Your task to perform on an android device: visit the assistant section in the google photos Image 0: 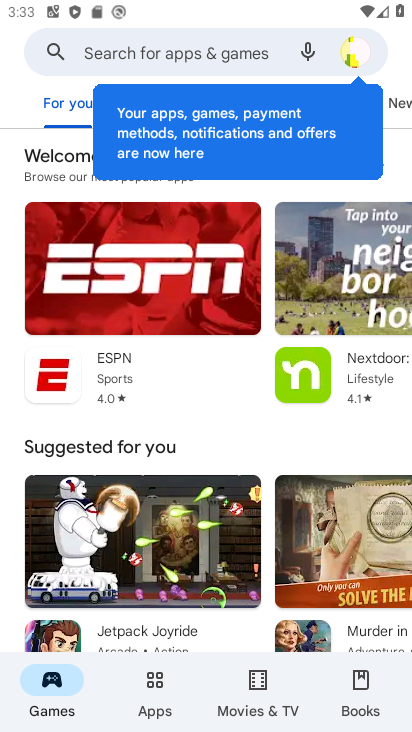
Step 0: press home button
Your task to perform on an android device: visit the assistant section in the google photos Image 1: 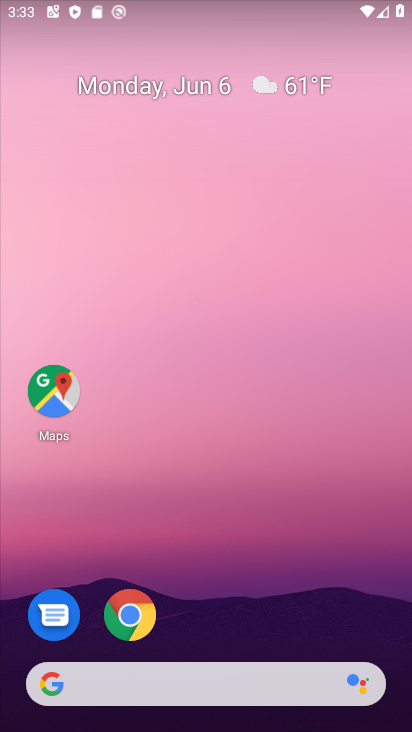
Step 1: drag from (338, 627) to (282, 0)
Your task to perform on an android device: visit the assistant section in the google photos Image 2: 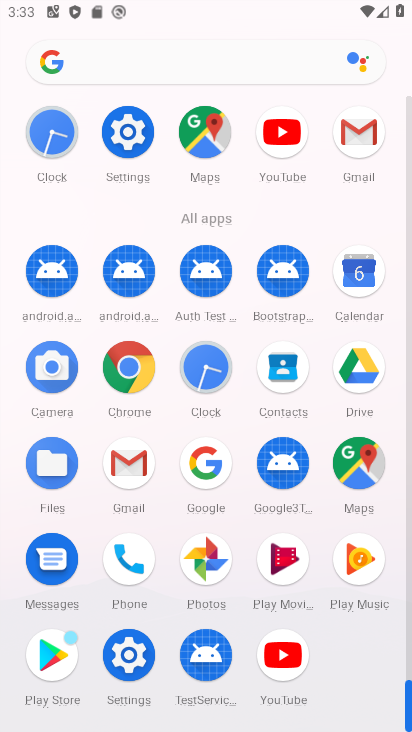
Step 2: click (206, 558)
Your task to perform on an android device: visit the assistant section in the google photos Image 3: 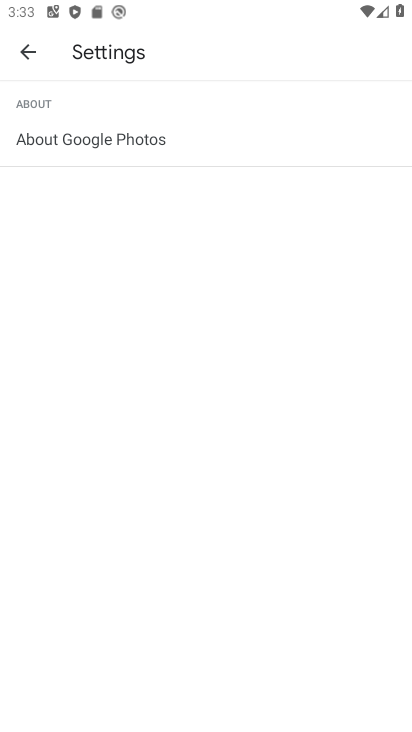
Step 3: press home button
Your task to perform on an android device: visit the assistant section in the google photos Image 4: 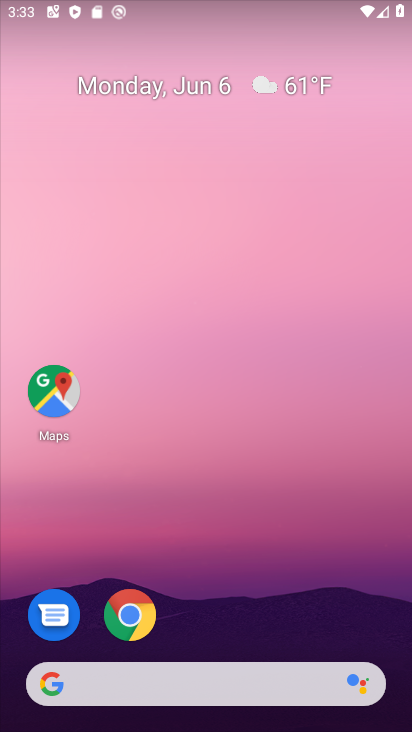
Step 4: drag from (317, 613) to (310, 105)
Your task to perform on an android device: visit the assistant section in the google photos Image 5: 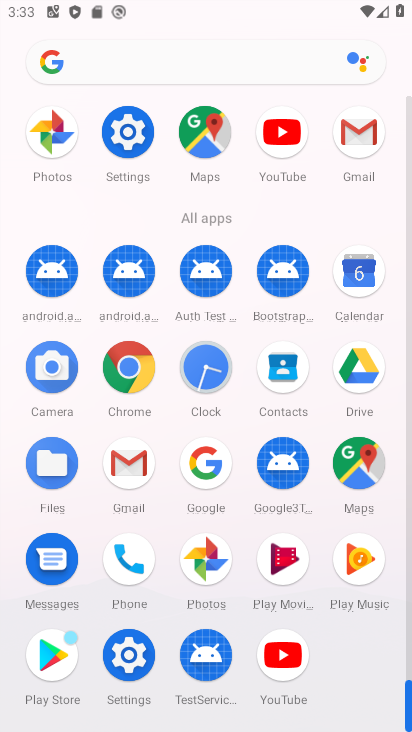
Step 5: click (209, 552)
Your task to perform on an android device: visit the assistant section in the google photos Image 6: 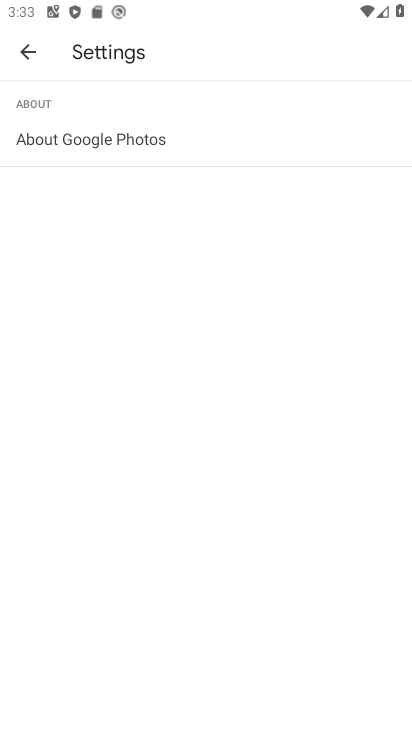
Step 6: press back button
Your task to perform on an android device: visit the assistant section in the google photos Image 7: 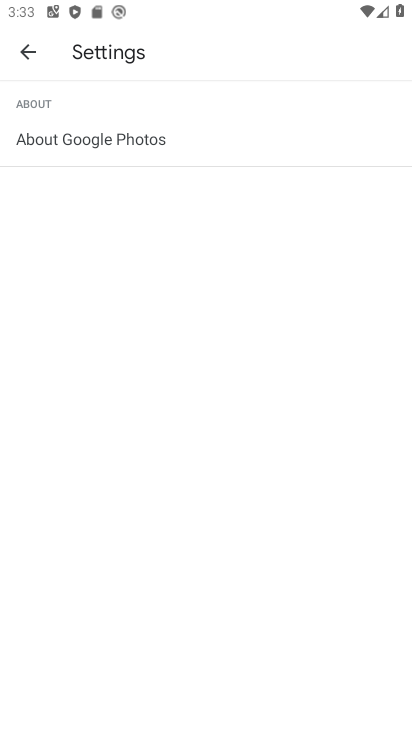
Step 7: press back button
Your task to perform on an android device: visit the assistant section in the google photos Image 8: 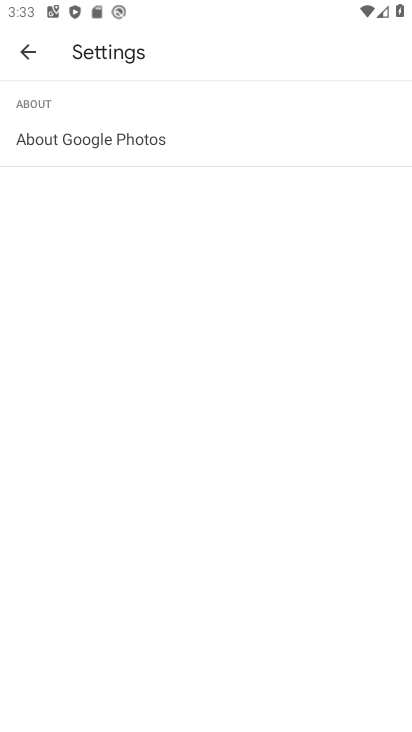
Step 8: press back button
Your task to perform on an android device: visit the assistant section in the google photos Image 9: 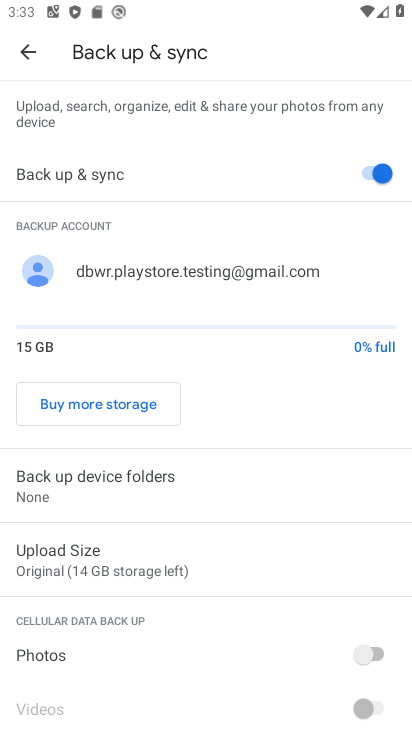
Step 9: press back button
Your task to perform on an android device: visit the assistant section in the google photos Image 10: 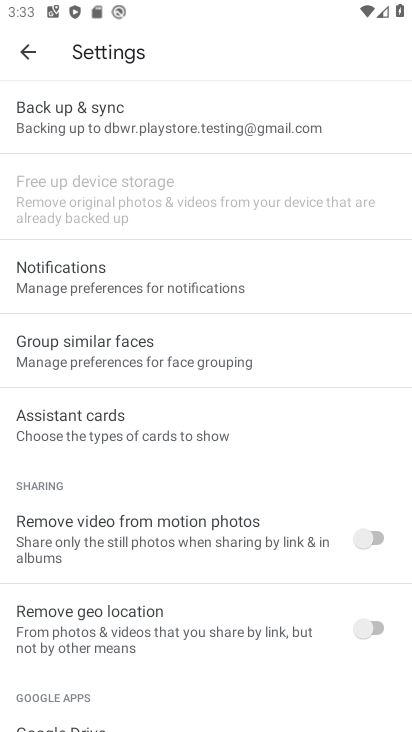
Step 10: press back button
Your task to perform on an android device: visit the assistant section in the google photos Image 11: 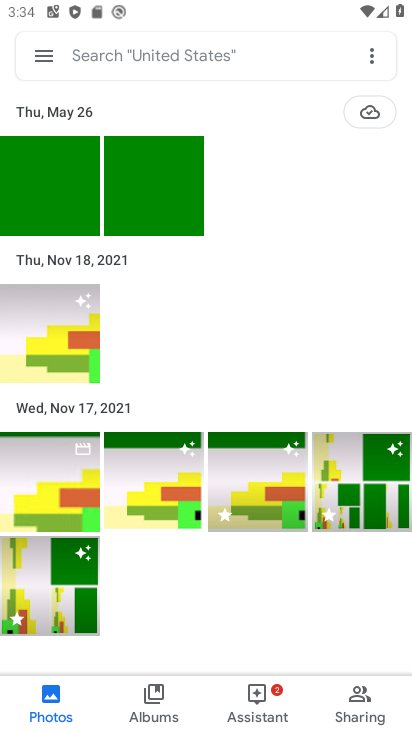
Step 11: click (259, 692)
Your task to perform on an android device: visit the assistant section in the google photos Image 12: 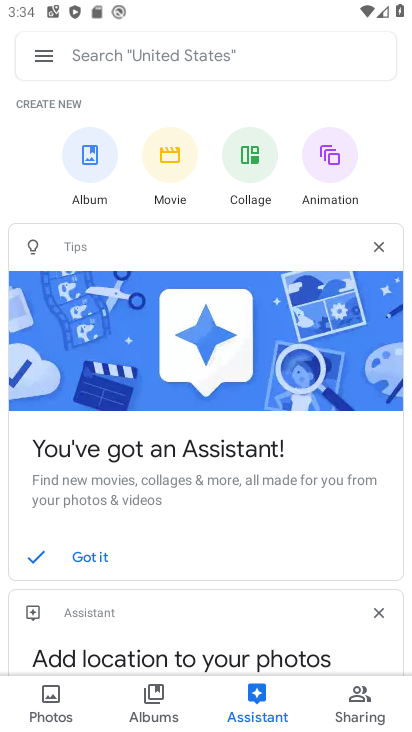
Step 12: task complete